Your task to perform on an android device: Go to display settings Image 0: 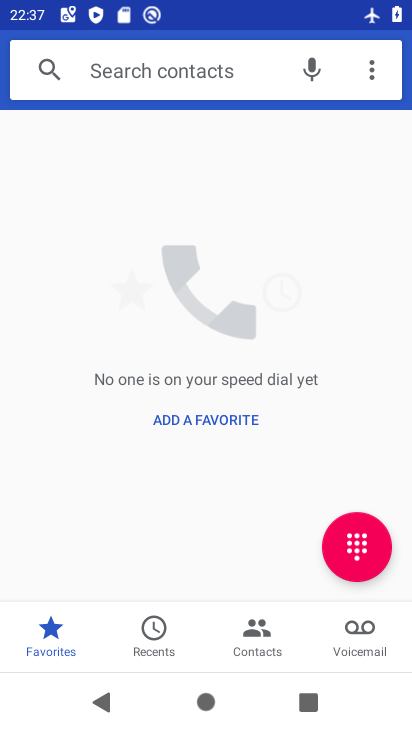
Step 0: press home button
Your task to perform on an android device: Go to display settings Image 1: 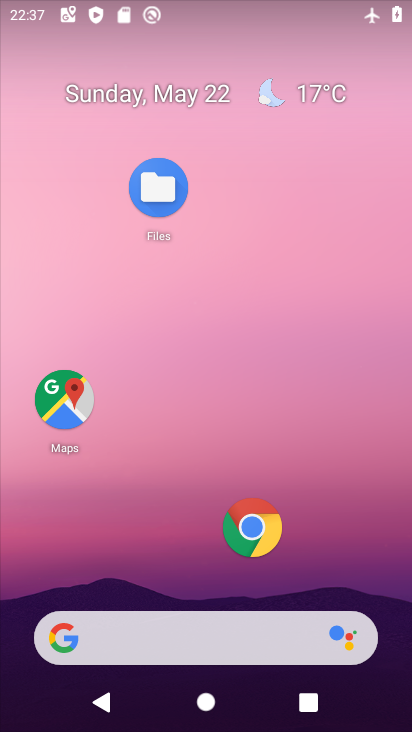
Step 1: drag from (167, 534) to (149, 98)
Your task to perform on an android device: Go to display settings Image 2: 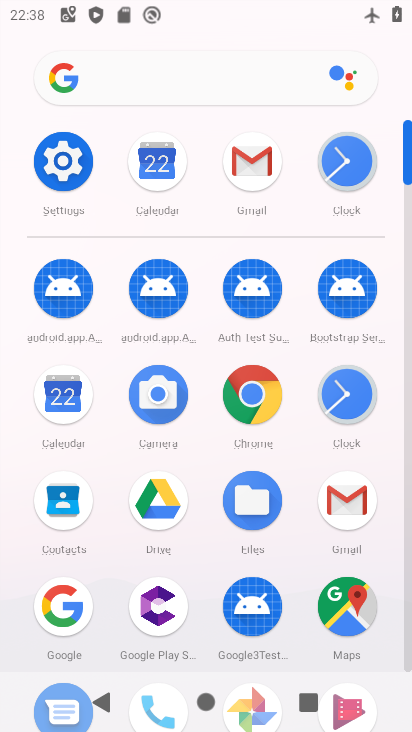
Step 2: click (65, 157)
Your task to perform on an android device: Go to display settings Image 3: 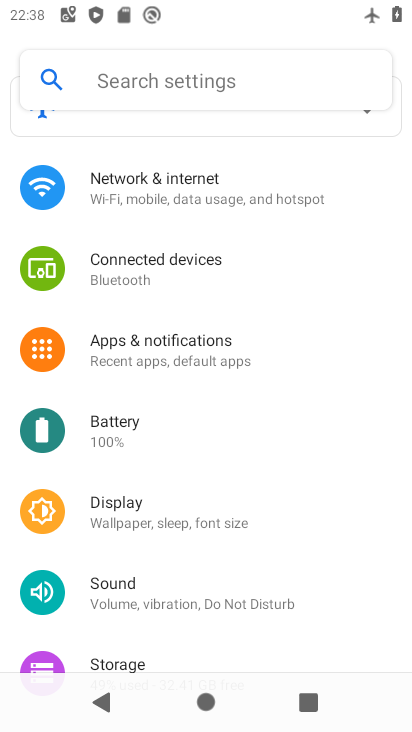
Step 3: click (119, 499)
Your task to perform on an android device: Go to display settings Image 4: 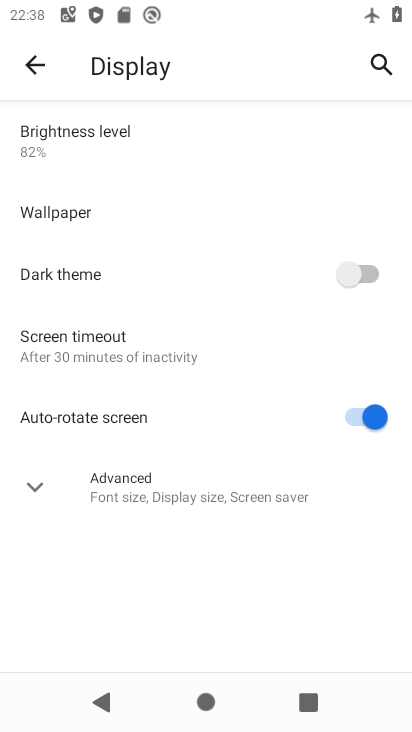
Step 4: task complete